Your task to perform on an android device: change alarm snooze length Image 0: 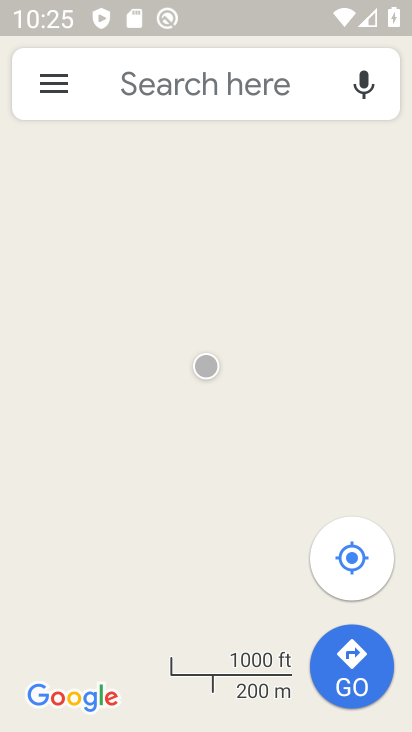
Step 0: press home button
Your task to perform on an android device: change alarm snooze length Image 1: 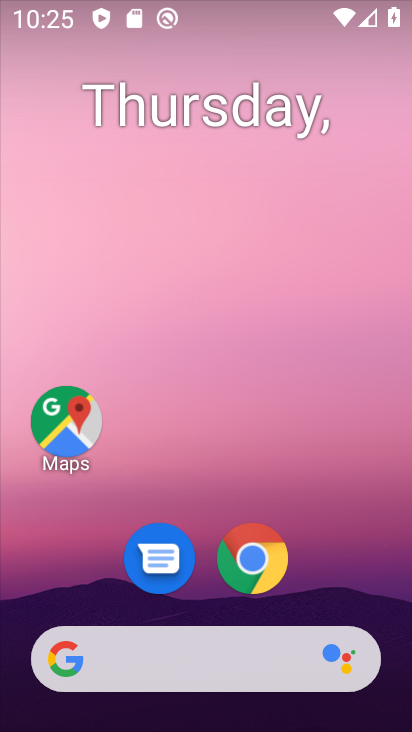
Step 1: drag from (310, 602) to (378, 40)
Your task to perform on an android device: change alarm snooze length Image 2: 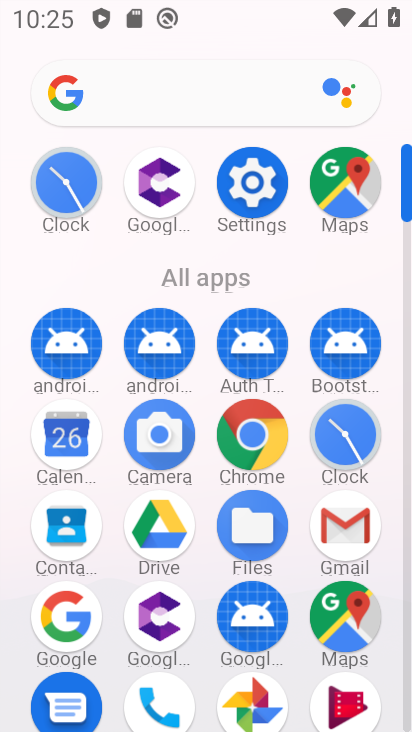
Step 2: click (338, 424)
Your task to perform on an android device: change alarm snooze length Image 3: 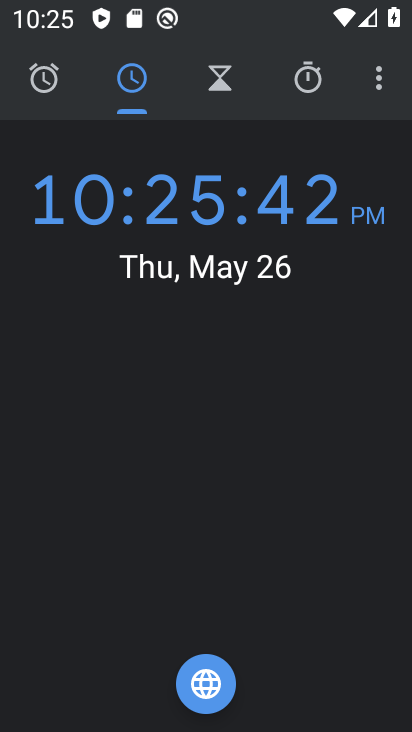
Step 3: click (370, 68)
Your task to perform on an android device: change alarm snooze length Image 4: 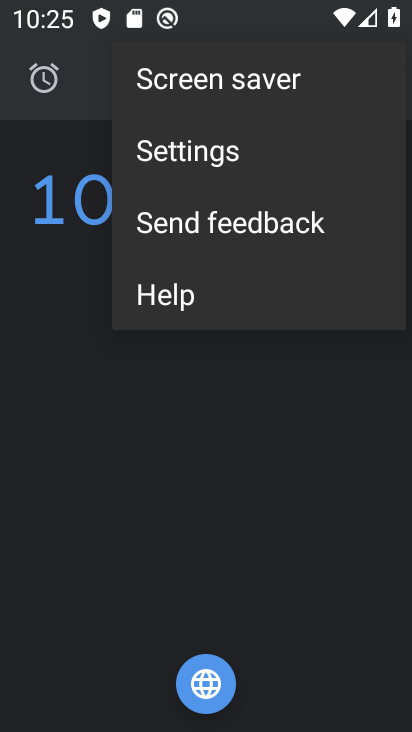
Step 4: click (202, 165)
Your task to perform on an android device: change alarm snooze length Image 5: 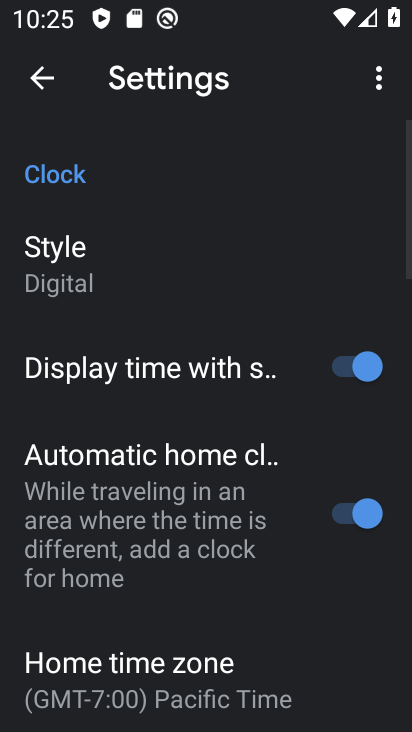
Step 5: drag from (178, 645) to (222, 140)
Your task to perform on an android device: change alarm snooze length Image 6: 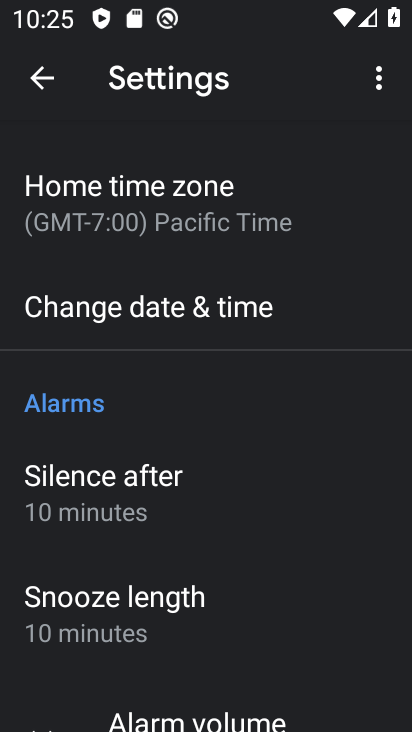
Step 6: click (117, 620)
Your task to perform on an android device: change alarm snooze length Image 7: 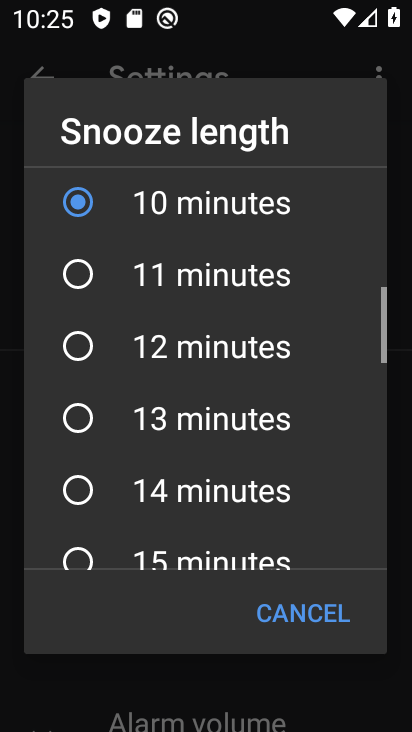
Step 7: click (88, 418)
Your task to perform on an android device: change alarm snooze length Image 8: 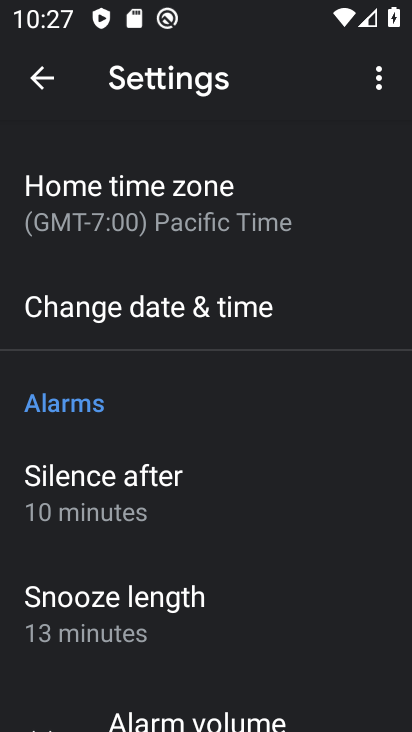
Step 8: task complete